Your task to perform on an android device: Go to calendar. Show me events next week Image 0: 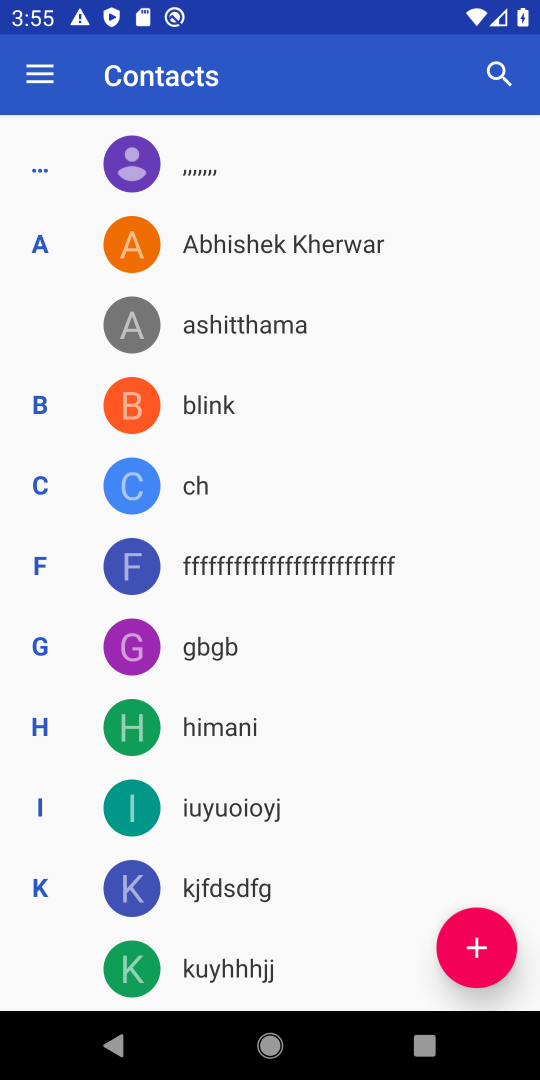
Step 0: press home button
Your task to perform on an android device: Go to calendar. Show me events next week Image 1: 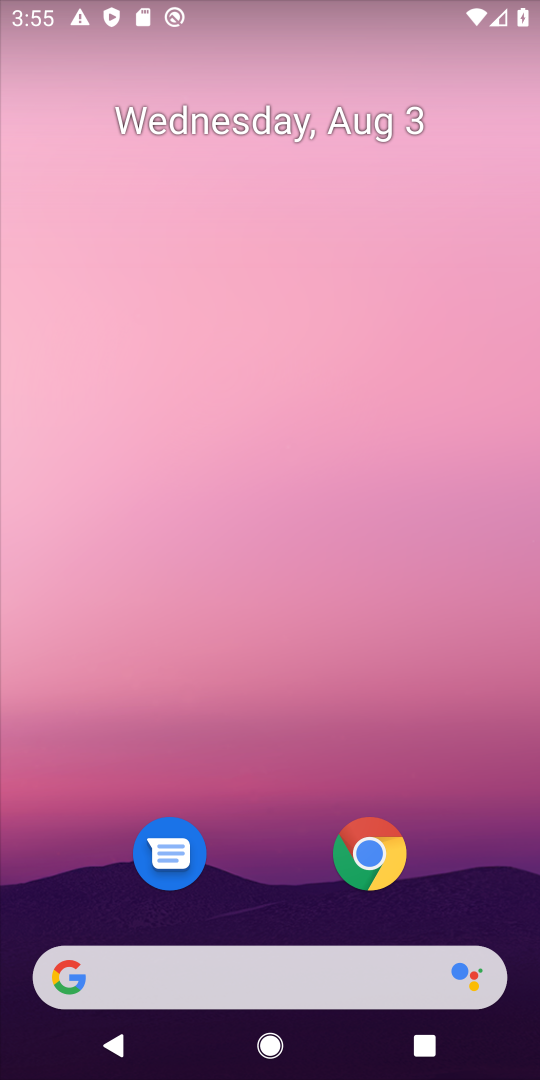
Step 1: drag from (258, 621) to (264, 106)
Your task to perform on an android device: Go to calendar. Show me events next week Image 2: 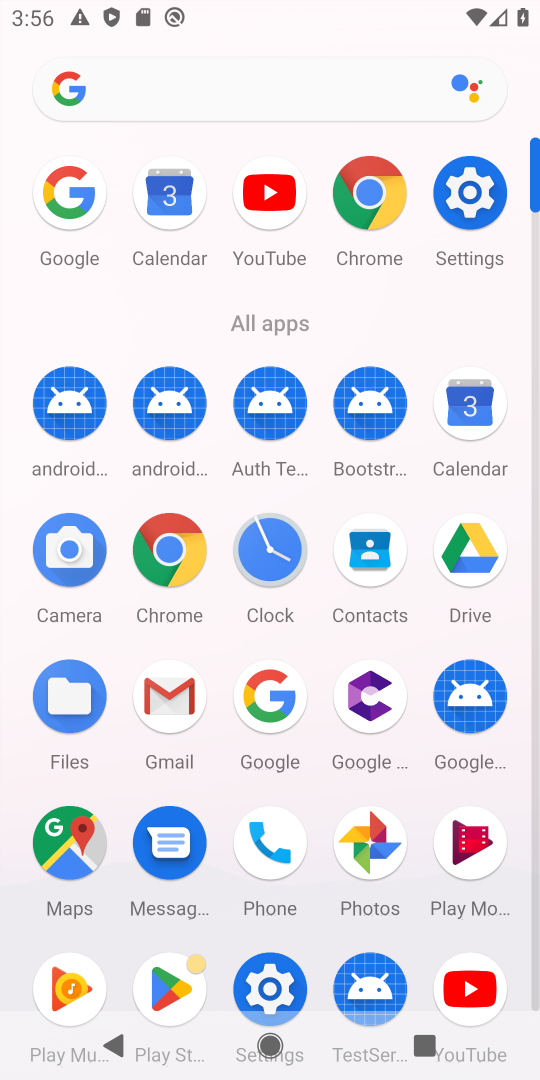
Step 2: click (463, 404)
Your task to perform on an android device: Go to calendar. Show me events next week Image 3: 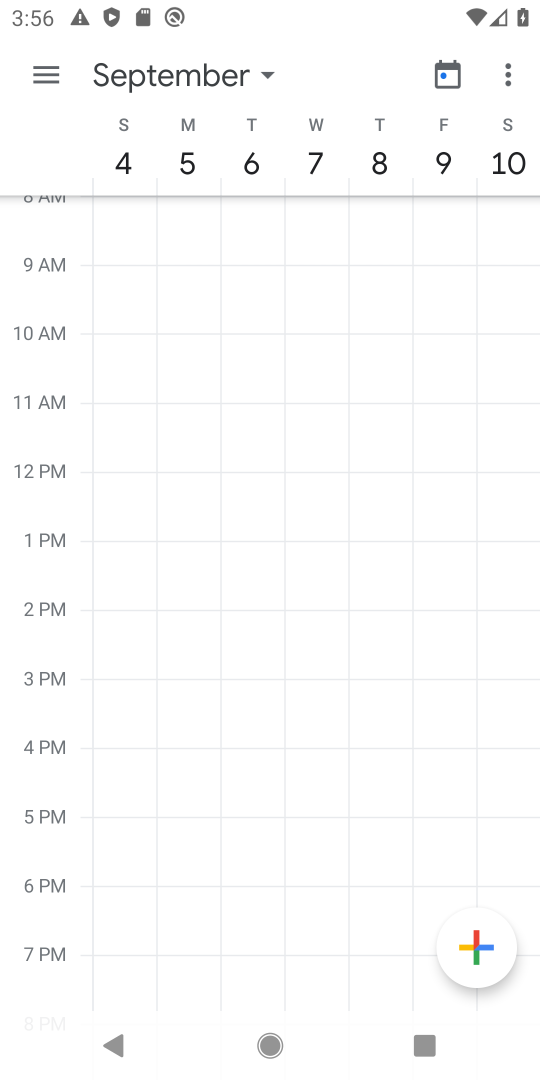
Step 3: click (263, 72)
Your task to perform on an android device: Go to calendar. Show me events next week Image 4: 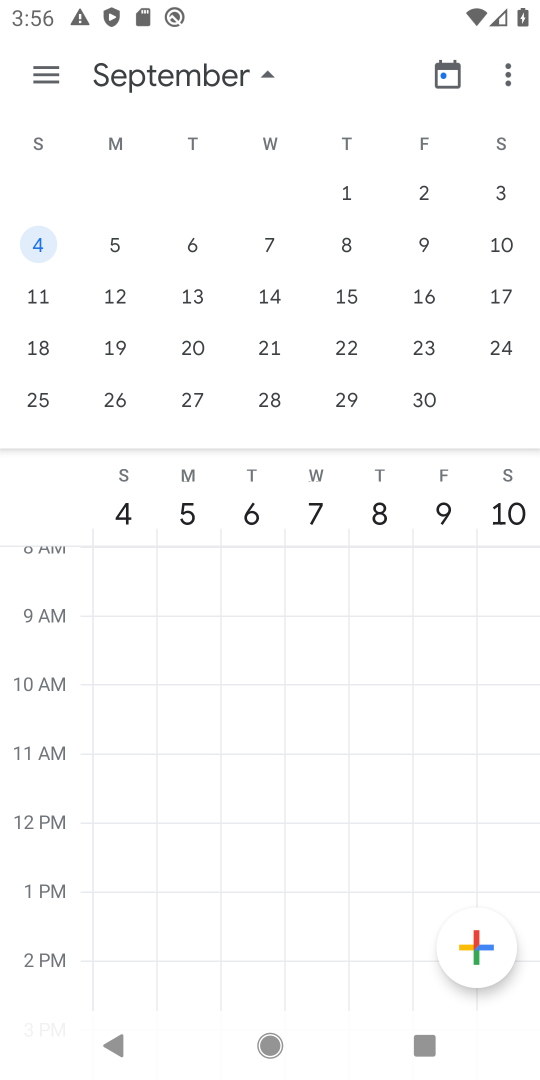
Step 4: task complete